Your task to perform on an android device: turn off notifications in google photos Image 0: 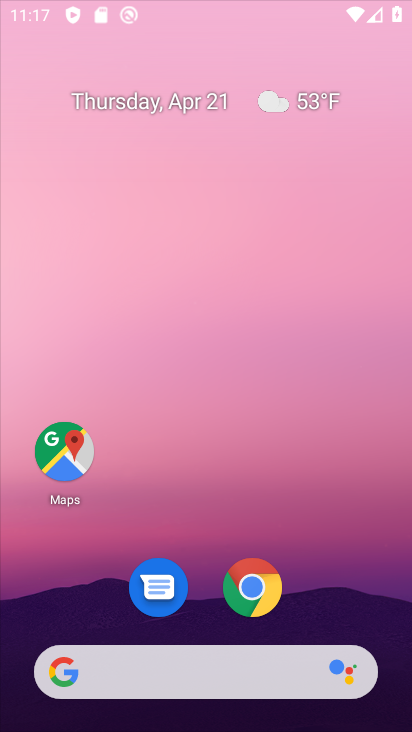
Step 0: click (244, 113)
Your task to perform on an android device: turn off notifications in google photos Image 1: 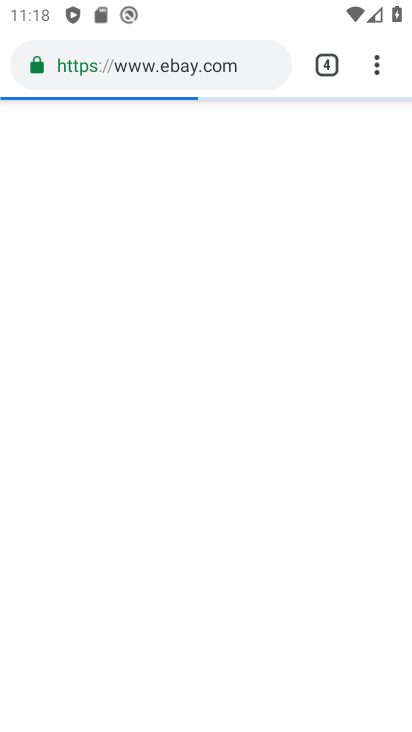
Step 1: press back button
Your task to perform on an android device: turn off notifications in google photos Image 2: 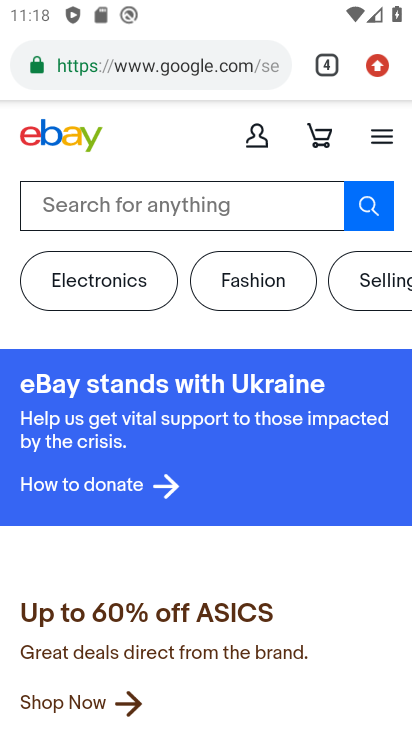
Step 2: press back button
Your task to perform on an android device: turn off notifications in google photos Image 3: 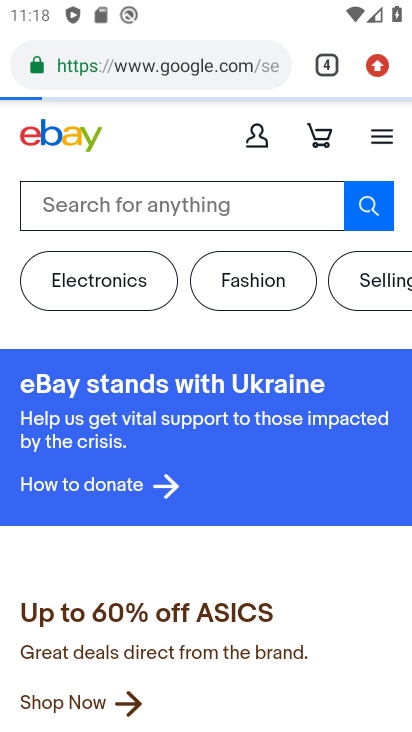
Step 3: press back button
Your task to perform on an android device: turn off notifications in google photos Image 4: 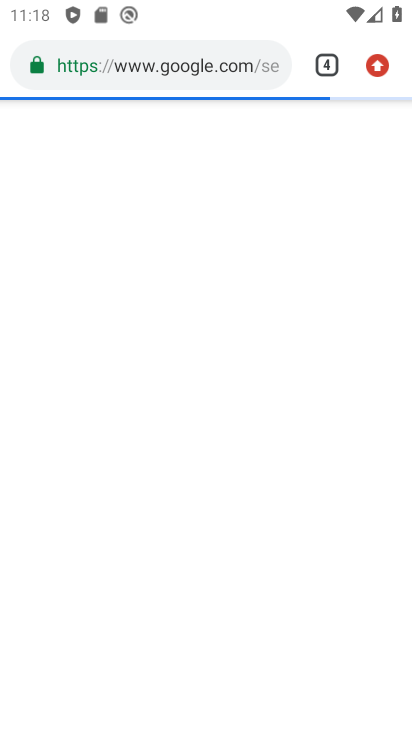
Step 4: press home button
Your task to perform on an android device: turn off notifications in google photos Image 5: 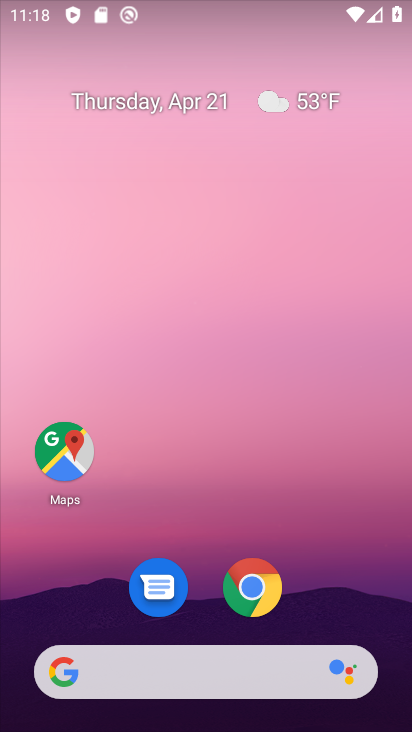
Step 5: drag from (223, 487) to (304, 21)
Your task to perform on an android device: turn off notifications in google photos Image 6: 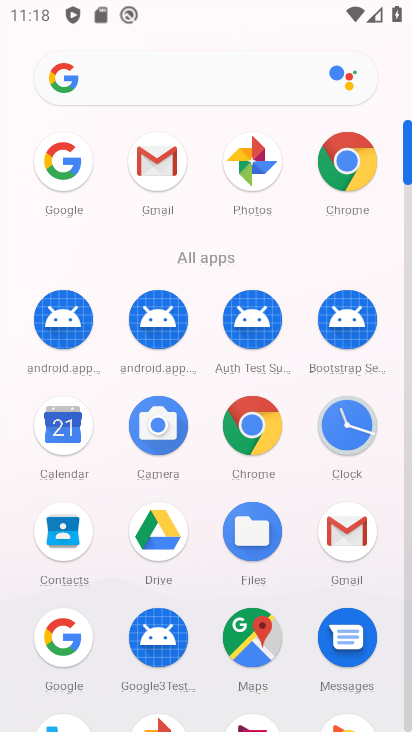
Step 6: drag from (230, 570) to (276, 135)
Your task to perform on an android device: turn off notifications in google photos Image 7: 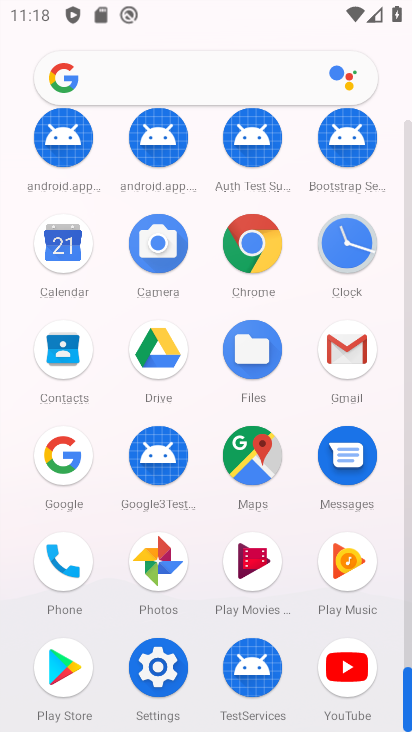
Step 7: click (171, 564)
Your task to perform on an android device: turn off notifications in google photos Image 8: 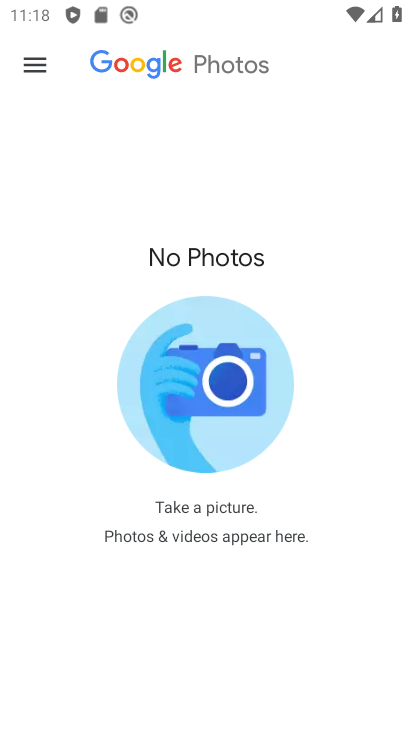
Step 8: click (31, 65)
Your task to perform on an android device: turn off notifications in google photos Image 9: 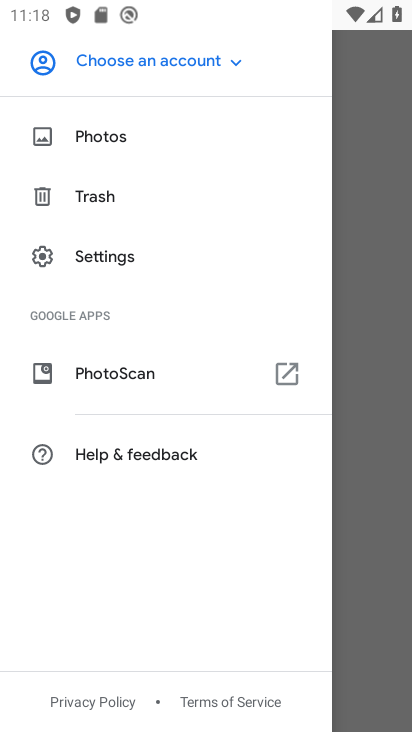
Step 9: click (105, 257)
Your task to perform on an android device: turn off notifications in google photos Image 10: 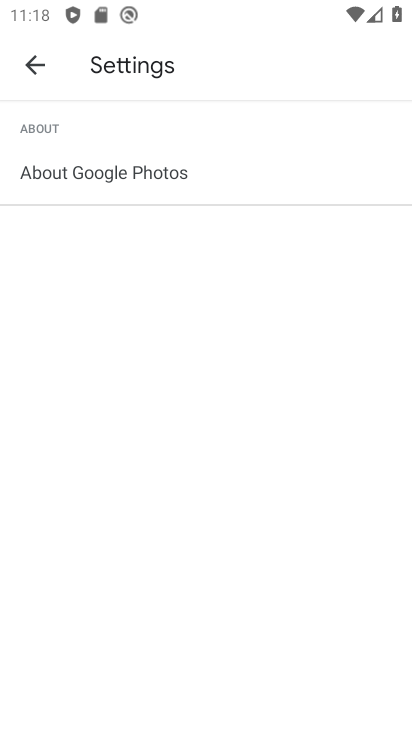
Step 10: click (38, 47)
Your task to perform on an android device: turn off notifications in google photos Image 11: 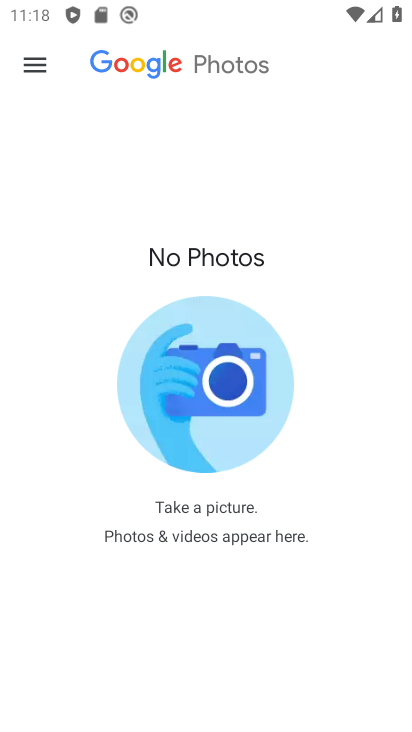
Step 11: click (47, 66)
Your task to perform on an android device: turn off notifications in google photos Image 12: 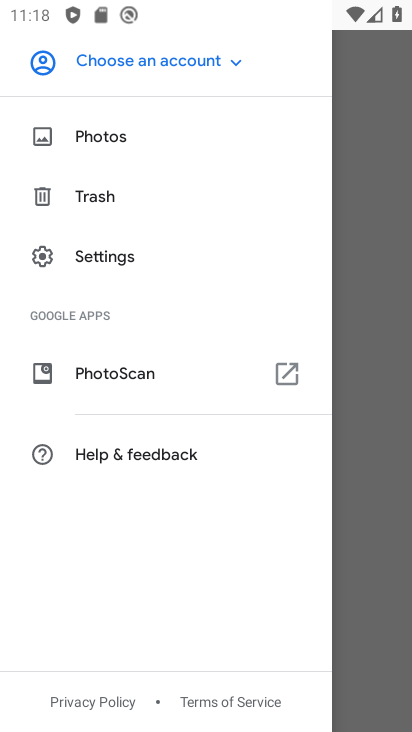
Step 12: click (123, 248)
Your task to perform on an android device: turn off notifications in google photos Image 13: 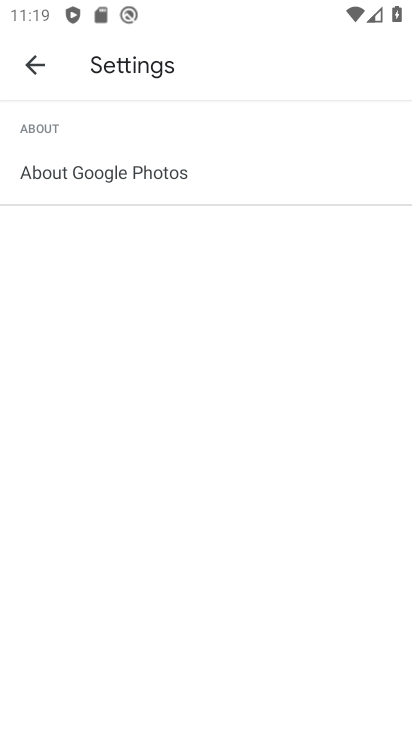
Step 13: click (145, 163)
Your task to perform on an android device: turn off notifications in google photos Image 14: 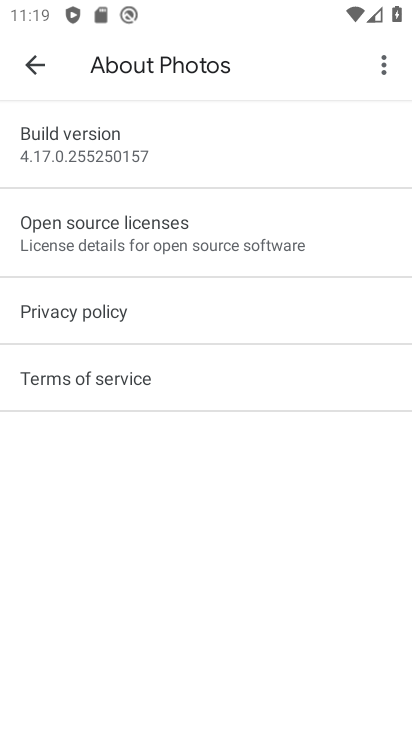
Step 14: click (28, 54)
Your task to perform on an android device: turn off notifications in google photos Image 15: 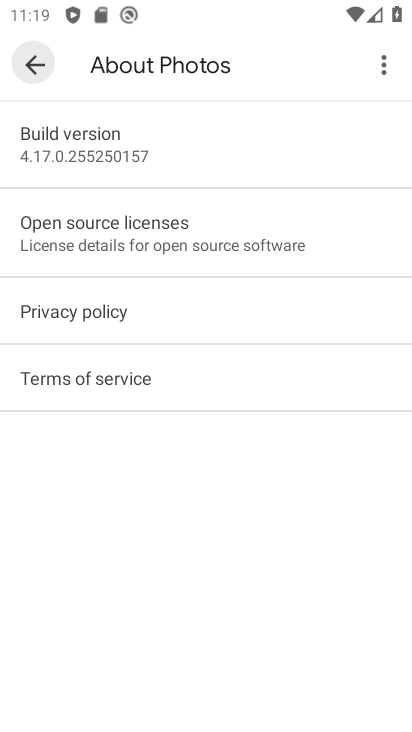
Step 15: press back button
Your task to perform on an android device: turn off notifications in google photos Image 16: 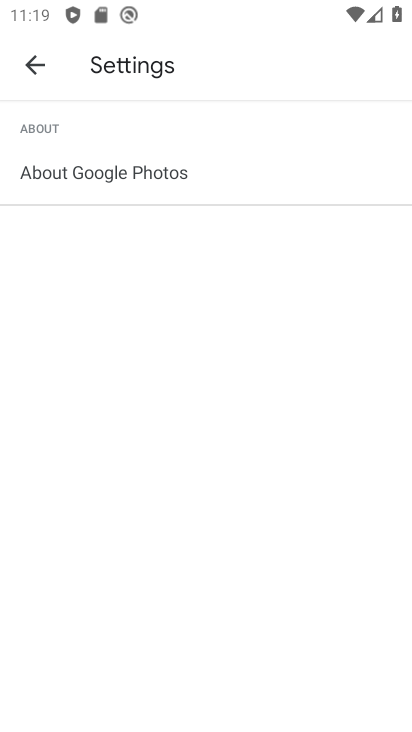
Step 16: press back button
Your task to perform on an android device: turn off notifications in google photos Image 17: 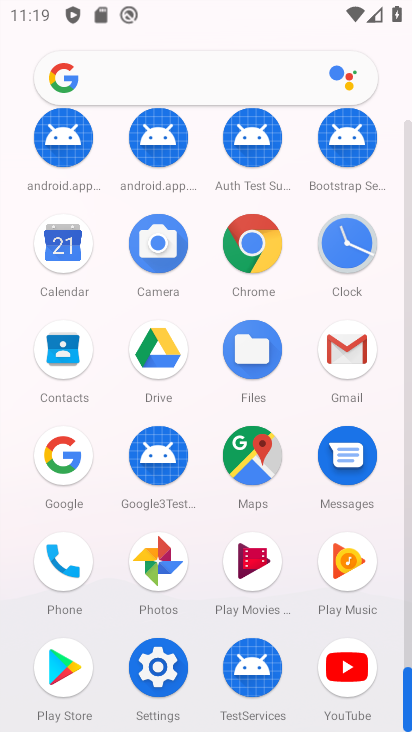
Step 17: press back button
Your task to perform on an android device: turn off notifications in google photos Image 18: 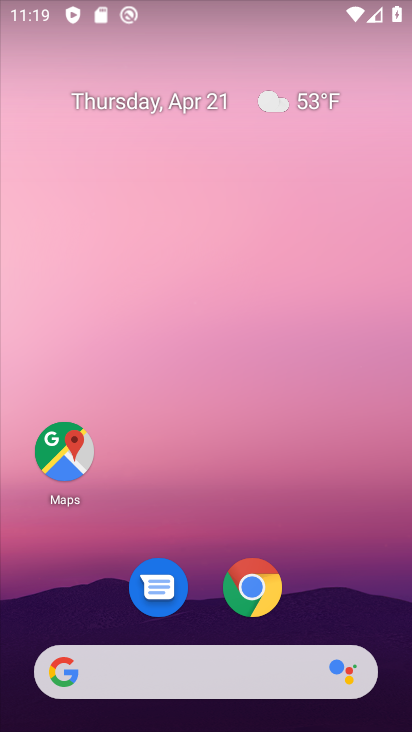
Step 18: drag from (210, 525) to (264, 102)
Your task to perform on an android device: turn off notifications in google photos Image 19: 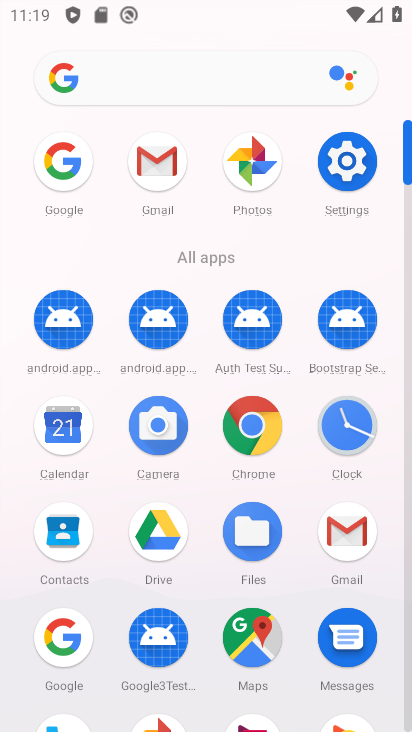
Step 19: click (244, 154)
Your task to perform on an android device: turn off notifications in google photos Image 20: 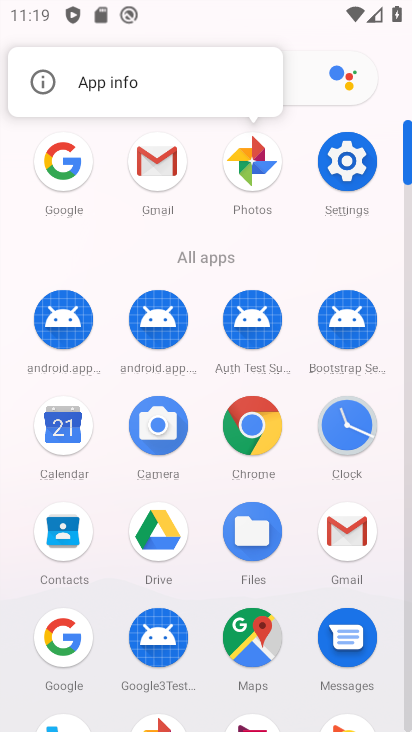
Step 20: click (103, 89)
Your task to perform on an android device: turn off notifications in google photos Image 21: 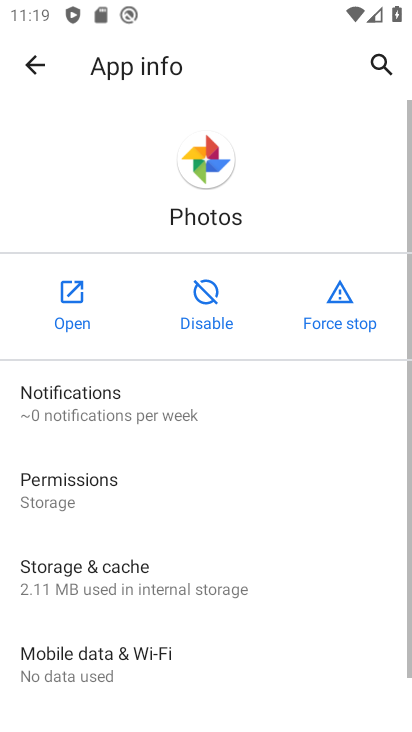
Step 21: click (163, 419)
Your task to perform on an android device: turn off notifications in google photos Image 22: 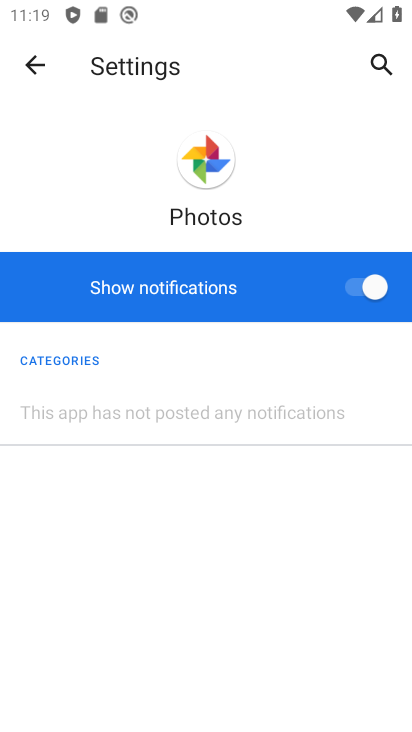
Step 22: click (368, 282)
Your task to perform on an android device: turn off notifications in google photos Image 23: 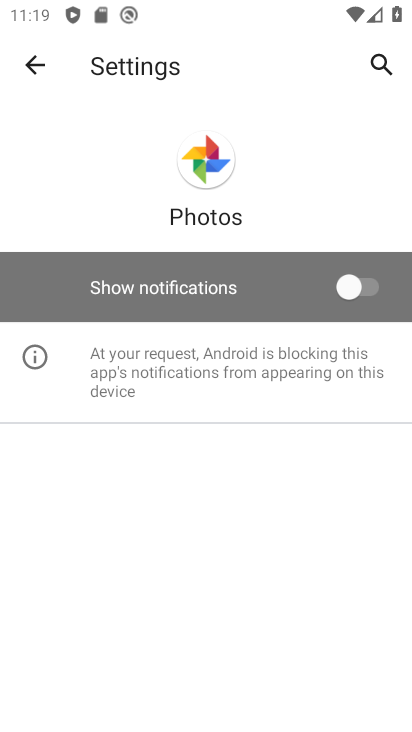
Step 23: task complete